Your task to perform on an android device: add a label to a message in the gmail app Image 0: 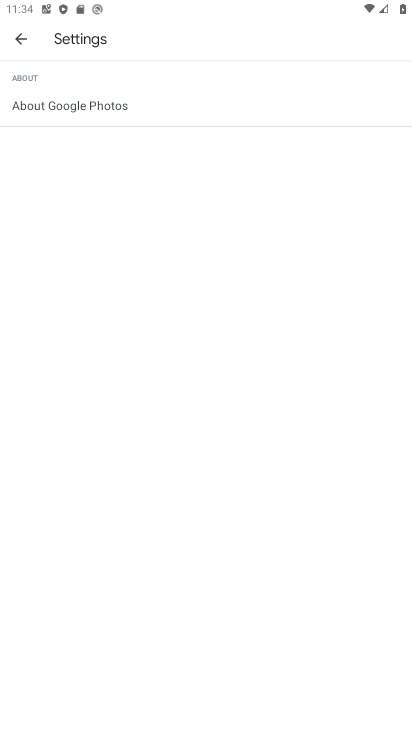
Step 0: press home button
Your task to perform on an android device: add a label to a message in the gmail app Image 1: 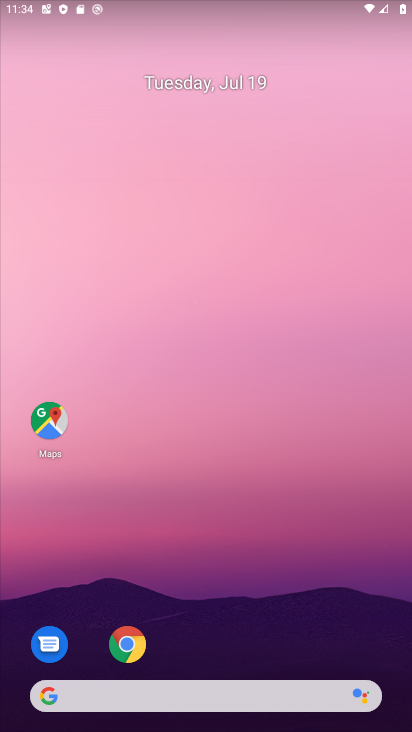
Step 1: drag from (56, 679) to (142, 101)
Your task to perform on an android device: add a label to a message in the gmail app Image 2: 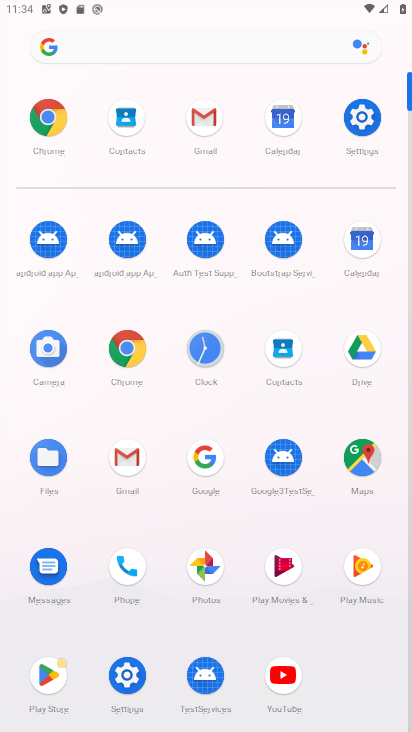
Step 2: click (123, 468)
Your task to perform on an android device: add a label to a message in the gmail app Image 3: 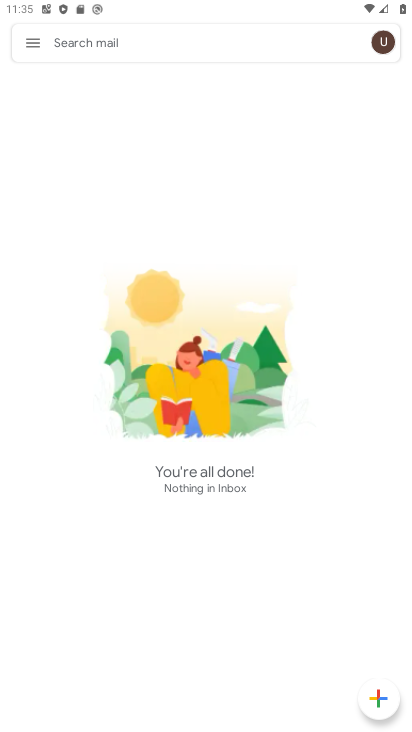
Step 3: click (31, 45)
Your task to perform on an android device: add a label to a message in the gmail app Image 4: 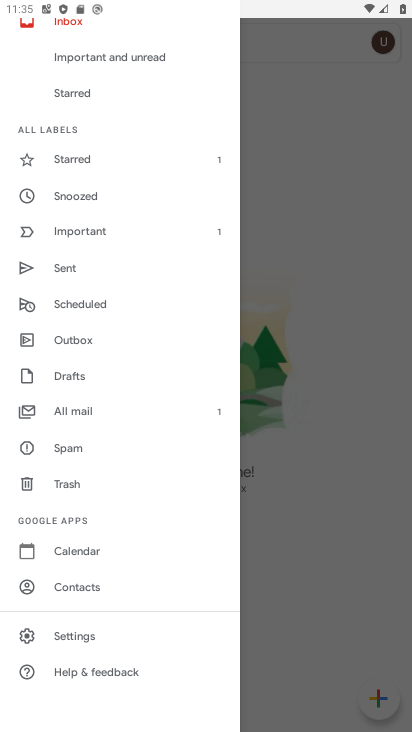
Step 4: drag from (107, 106) to (163, 644)
Your task to perform on an android device: add a label to a message in the gmail app Image 5: 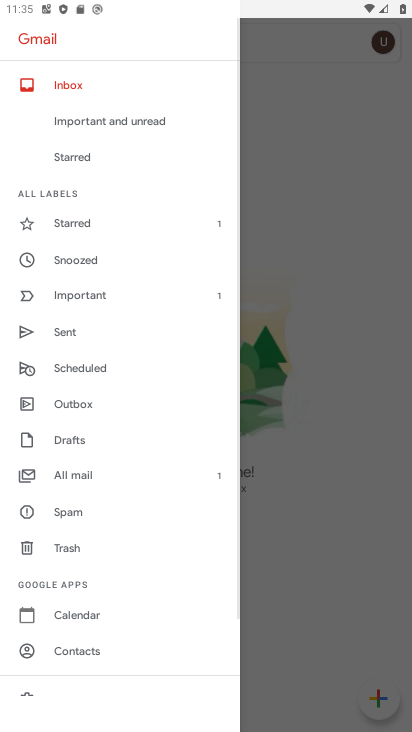
Step 5: click (112, 82)
Your task to perform on an android device: add a label to a message in the gmail app Image 6: 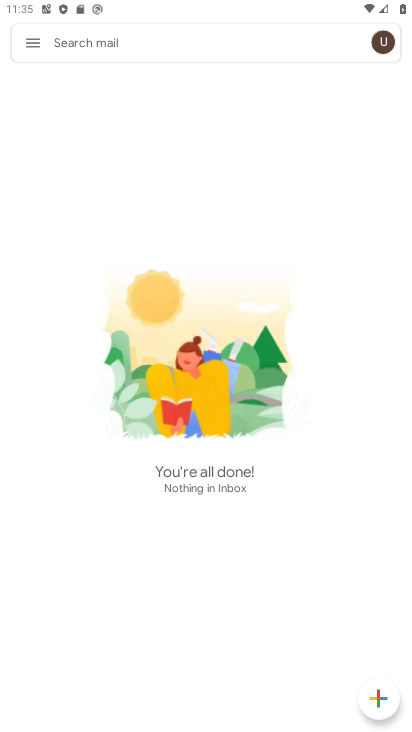
Step 6: task complete